Your task to perform on an android device: delete browsing data in the chrome app Image 0: 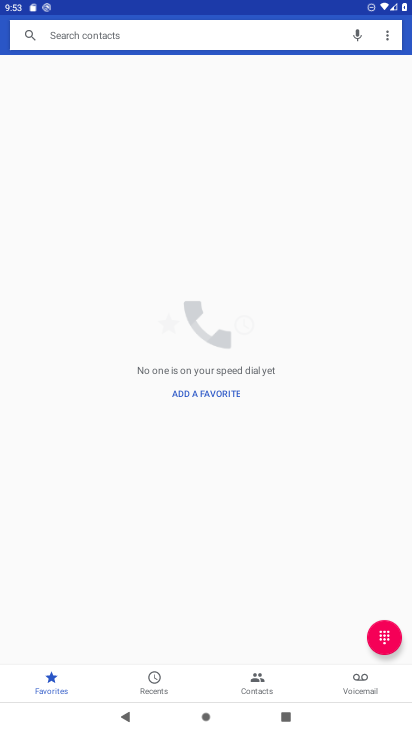
Step 0: press home button
Your task to perform on an android device: delete browsing data in the chrome app Image 1: 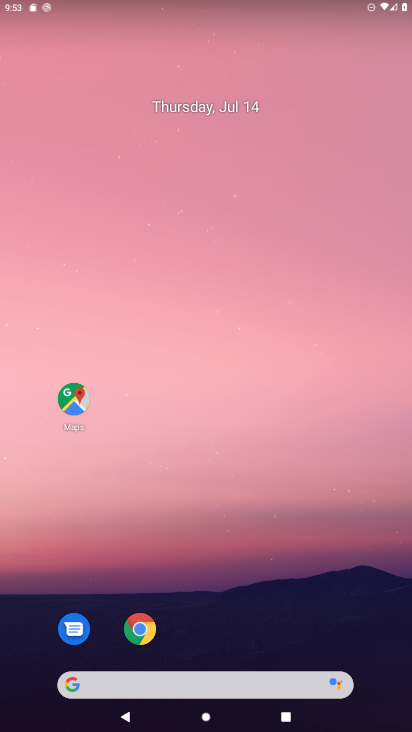
Step 1: drag from (244, 621) to (244, 54)
Your task to perform on an android device: delete browsing data in the chrome app Image 2: 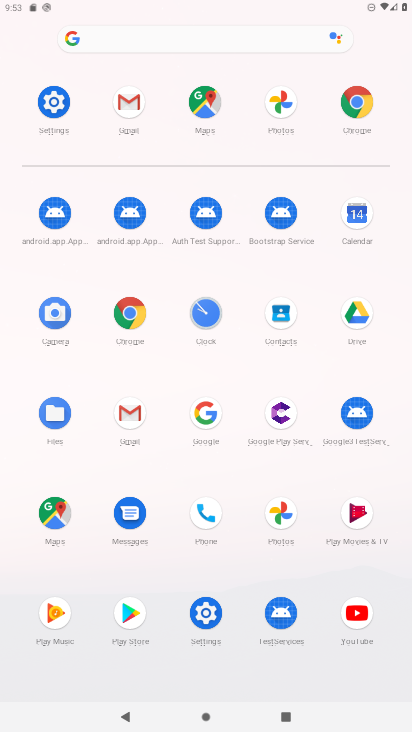
Step 2: click (130, 314)
Your task to perform on an android device: delete browsing data in the chrome app Image 3: 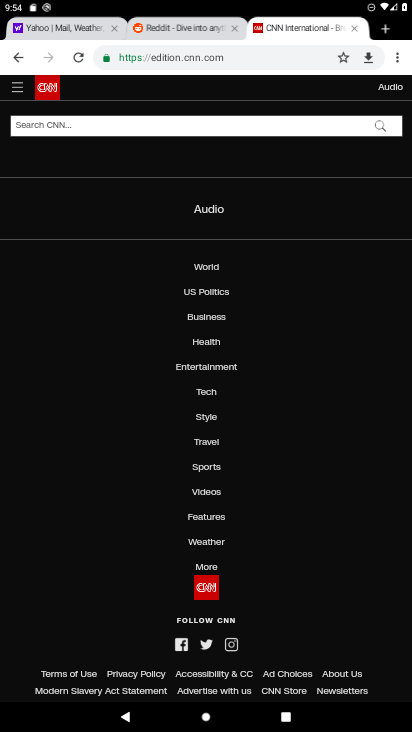
Step 3: drag from (394, 51) to (285, 387)
Your task to perform on an android device: delete browsing data in the chrome app Image 4: 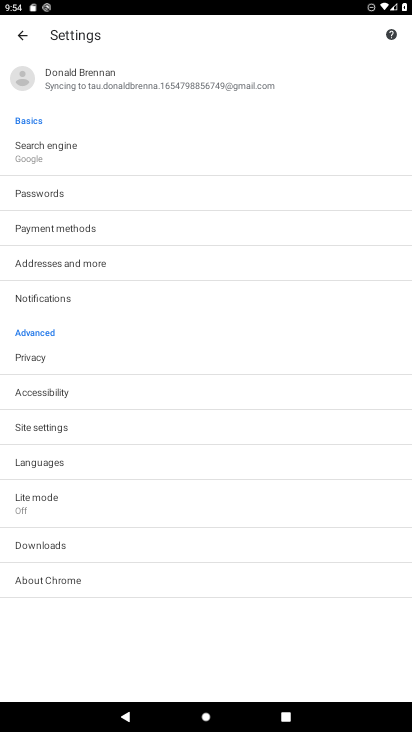
Step 4: click (16, 361)
Your task to perform on an android device: delete browsing data in the chrome app Image 5: 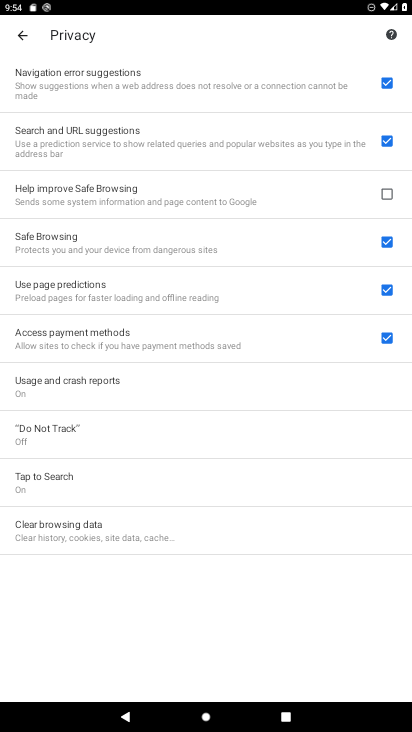
Step 5: click (71, 523)
Your task to perform on an android device: delete browsing data in the chrome app Image 6: 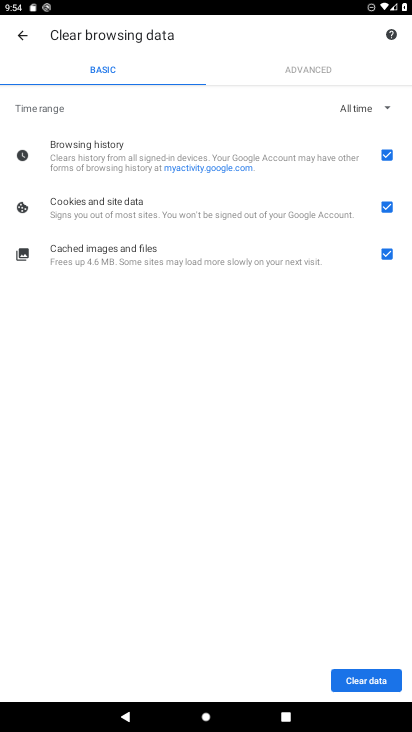
Step 6: click (361, 673)
Your task to perform on an android device: delete browsing data in the chrome app Image 7: 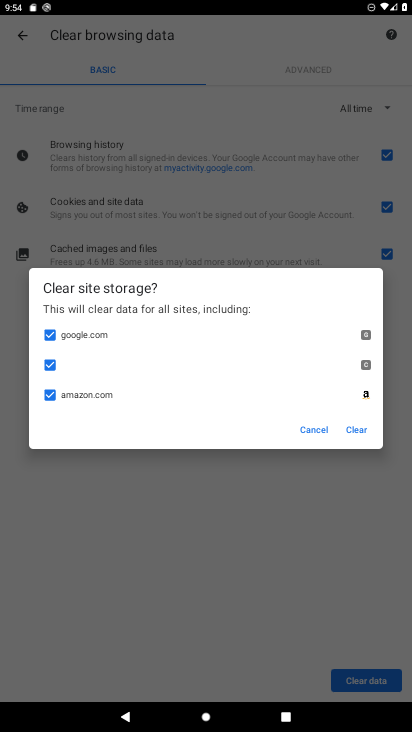
Step 7: click (362, 425)
Your task to perform on an android device: delete browsing data in the chrome app Image 8: 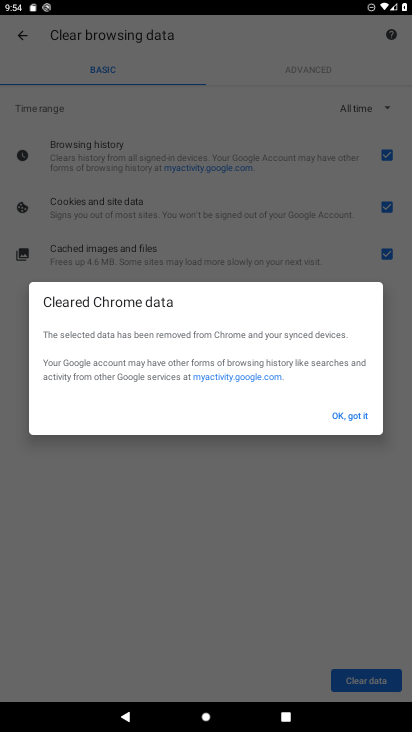
Step 8: click (358, 407)
Your task to perform on an android device: delete browsing data in the chrome app Image 9: 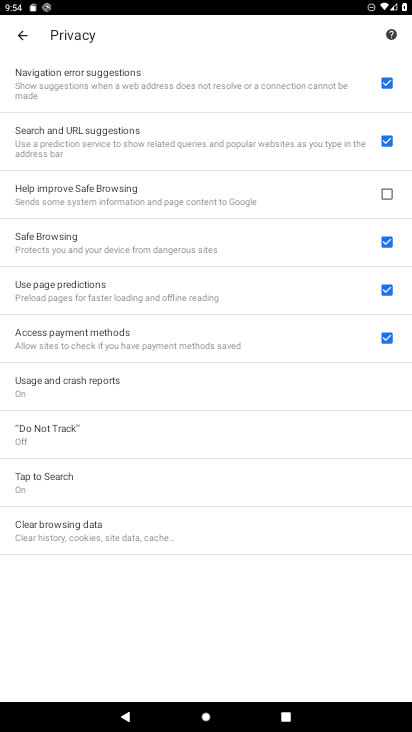
Step 9: task complete